Your task to perform on an android device: Turn on the flashlight Image 0: 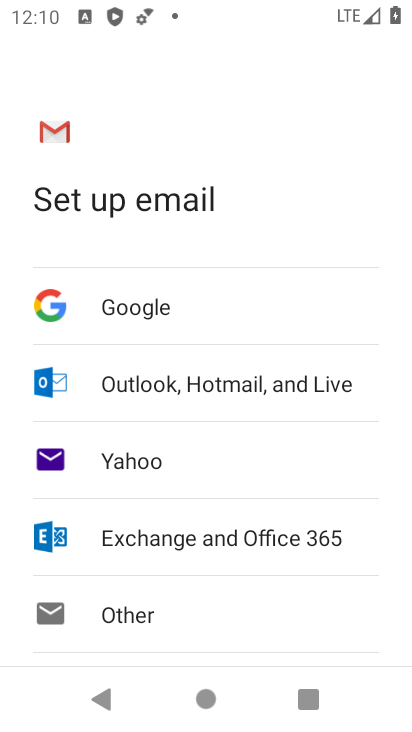
Step 0: press home button
Your task to perform on an android device: Turn on the flashlight Image 1: 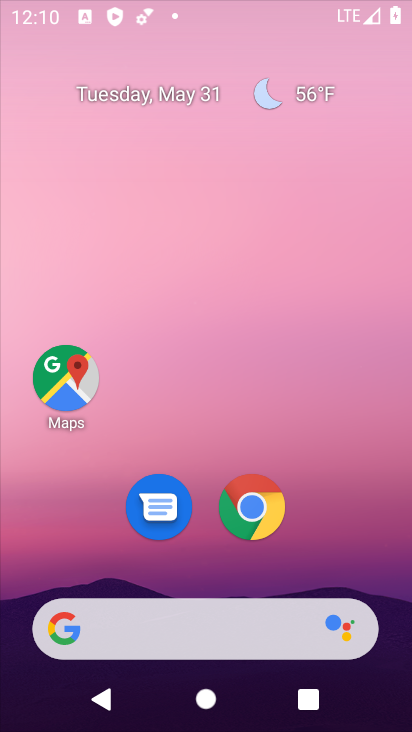
Step 1: drag from (396, 672) to (334, 63)
Your task to perform on an android device: Turn on the flashlight Image 2: 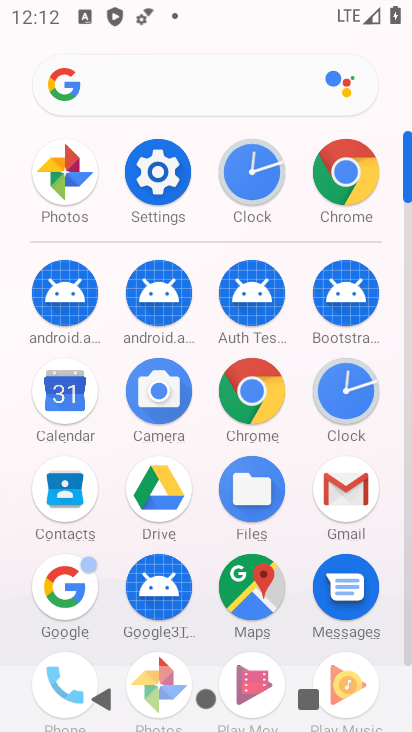
Step 2: click (171, 188)
Your task to perform on an android device: Turn on the flashlight Image 3: 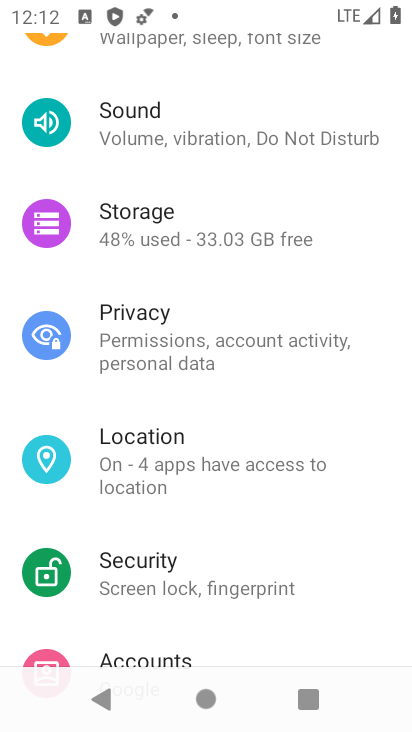
Step 3: task complete